Your task to perform on an android device: open a bookmark in the chrome app Image 0: 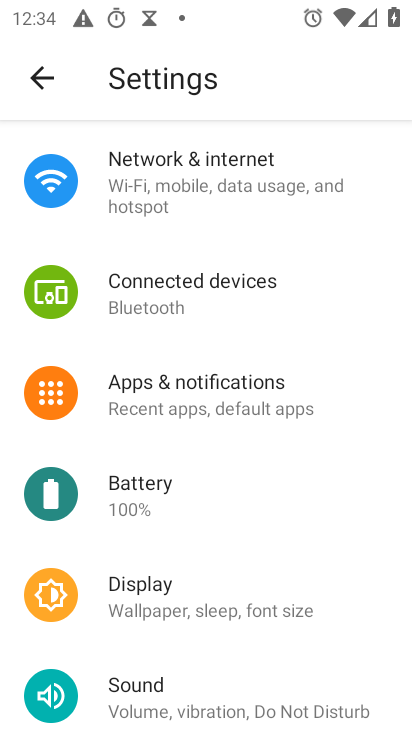
Step 0: press home button
Your task to perform on an android device: open a bookmark in the chrome app Image 1: 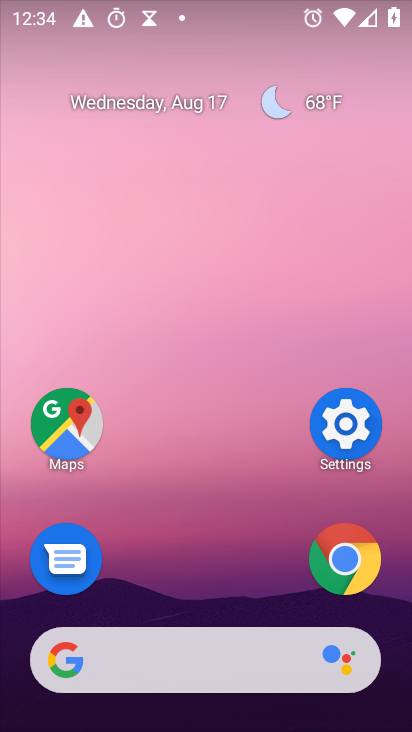
Step 1: click (339, 553)
Your task to perform on an android device: open a bookmark in the chrome app Image 2: 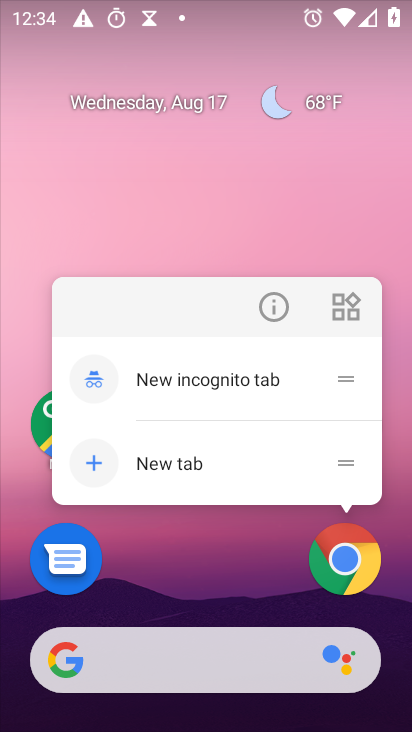
Step 2: click (331, 578)
Your task to perform on an android device: open a bookmark in the chrome app Image 3: 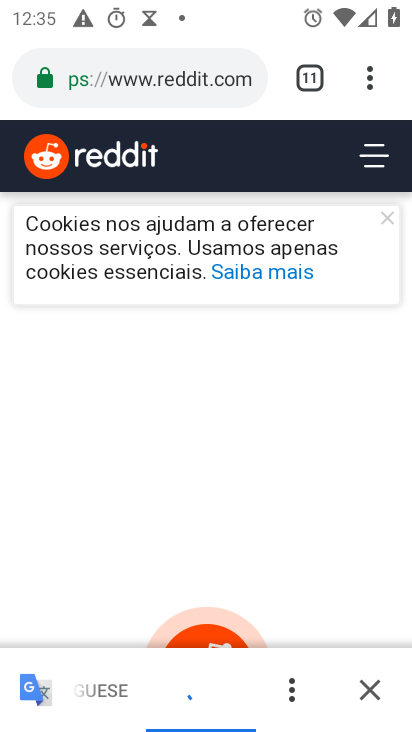
Step 3: task complete